Your task to perform on an android device: Open ESPN.com Image 0: 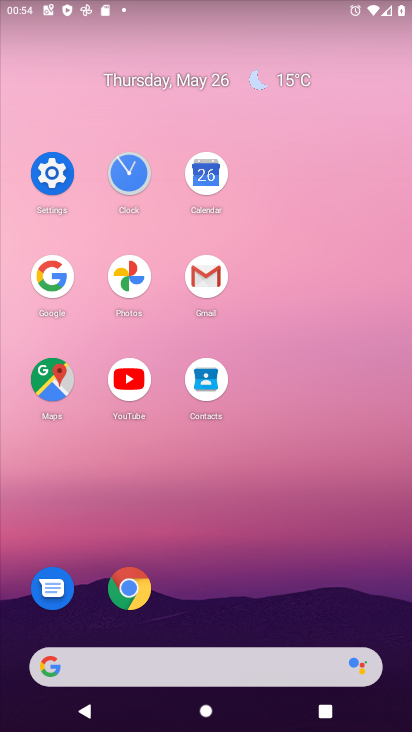
Step 0: click (138, 592)
Your task to perform on an android device: Open ESPN.com Image 1: 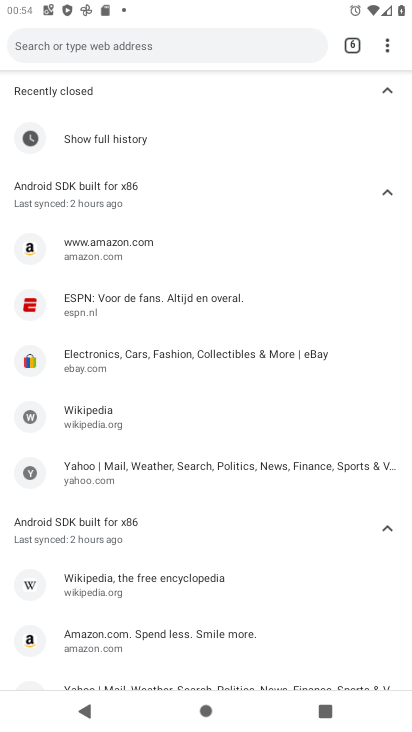
Step 1: click (348, 47)
Your task to perform on an android device: Open ESPN.com Image 2: 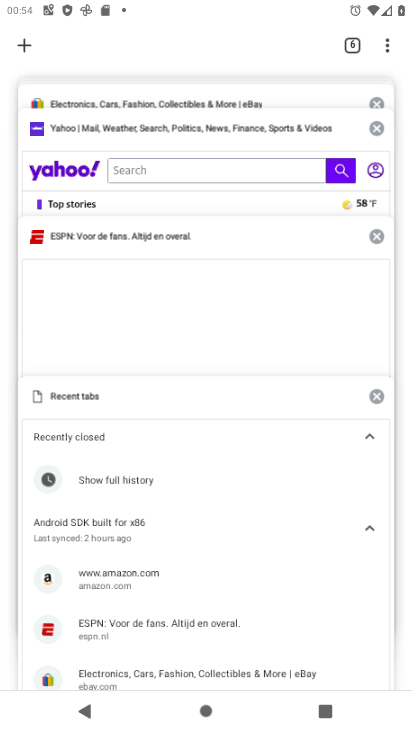
Step 2: drag from (193, 212) to (163, 542)
Your task to perform on an android device: Open ESPN.com Image 3: 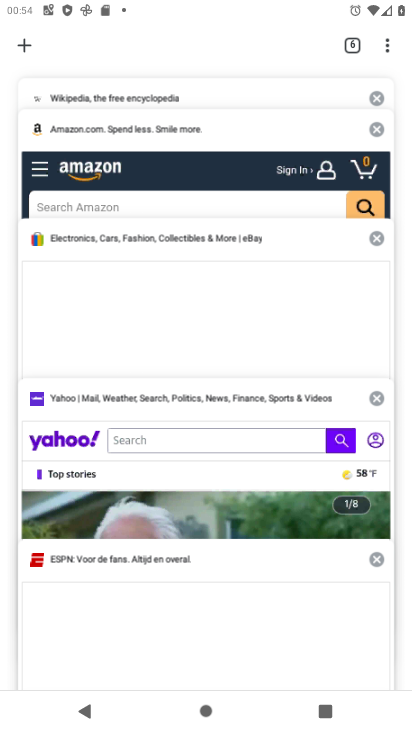
Step 3: drag from (126, 153) to (130, 529)
Your task to perform on an android device: Open ESPN.com Image 4: 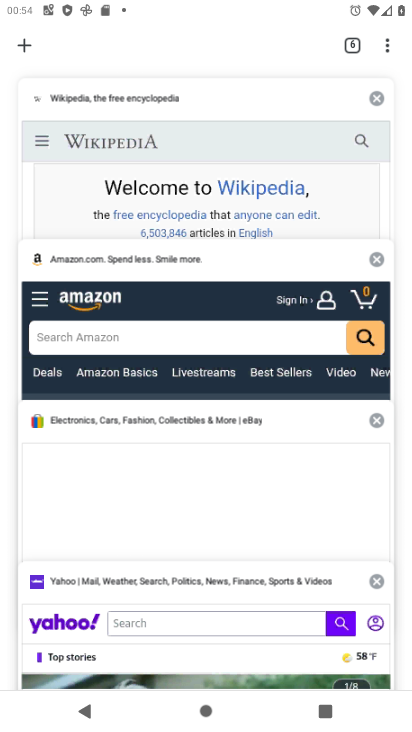
Step 4: click (19, 49)
Your task to perform on an android device: Open ESPN.com Image 5: 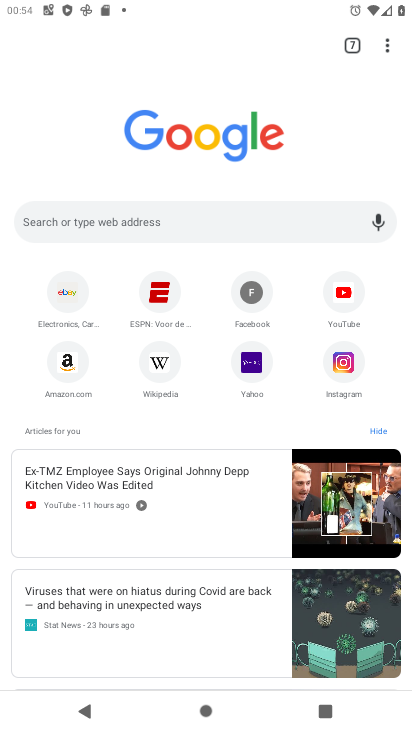
Step 5: click (161, 311)
Your task to perform on an android device: Open ESPN.com Image 6: 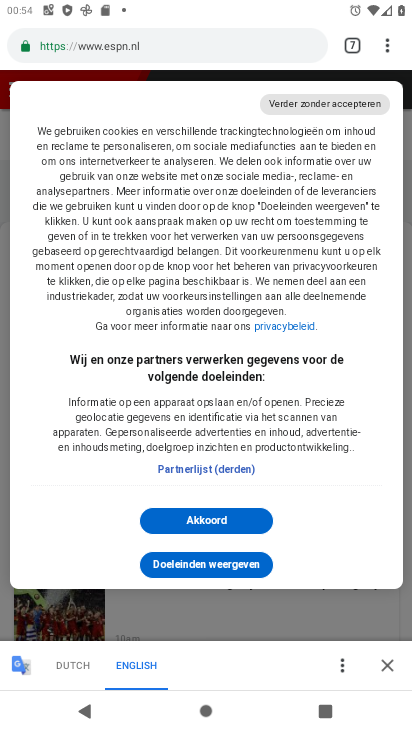
Step 6: task complete